Your task to perform on an android device: Open the map Image 0: 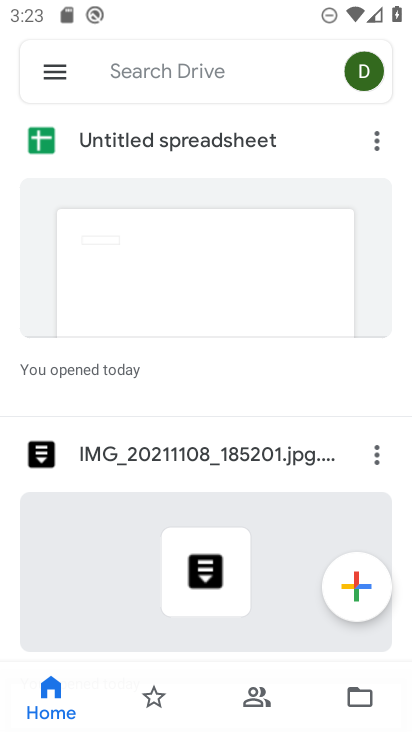
Step 0: press home button
Your task to perform on an android device: Open the map Image 1: 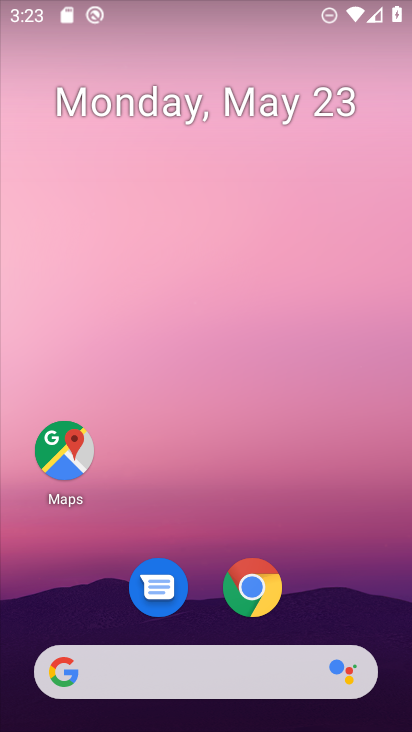
Step 1: click (77, 427)
Your task to perform on an android device: Open the map Image 2: 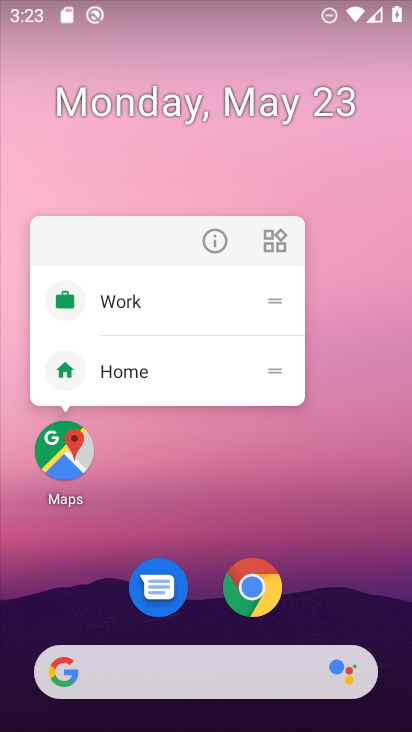
Step 2: click (78, 432)
Your task to perform on an android device: Open the map Image 3: 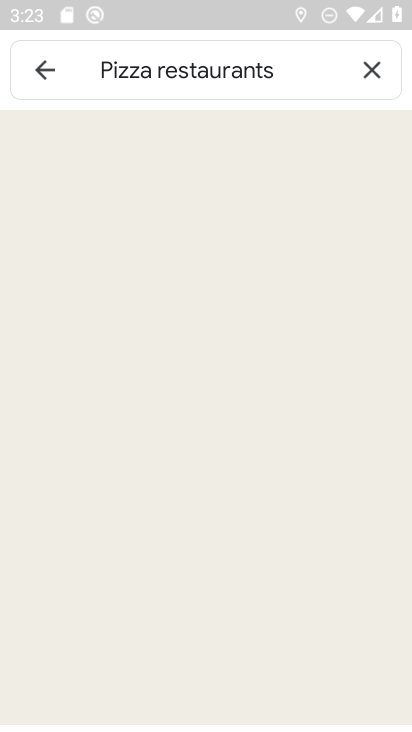
Step 3: click (374, 68)
Your task to perform on an android device: Open the map Image 4: 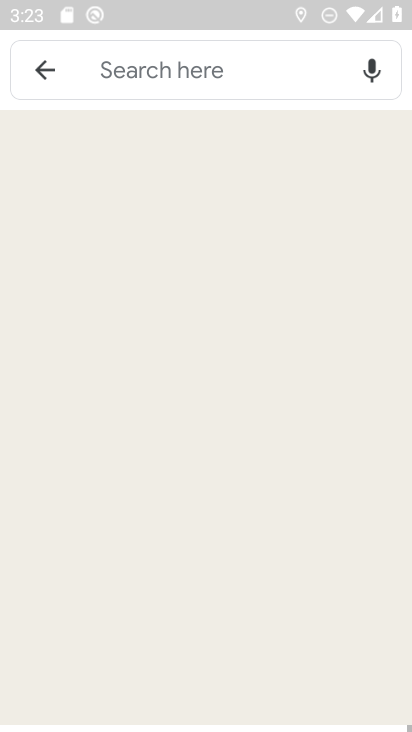
Step 4: click (46, 56)
Your task to perform on an android device: Open the map Image 5: 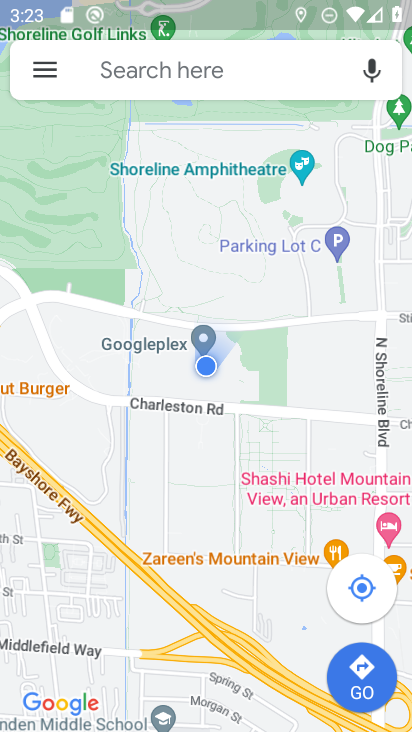
Step 5: task complete